Your task to perform on an android device: turn on location history Image 0: 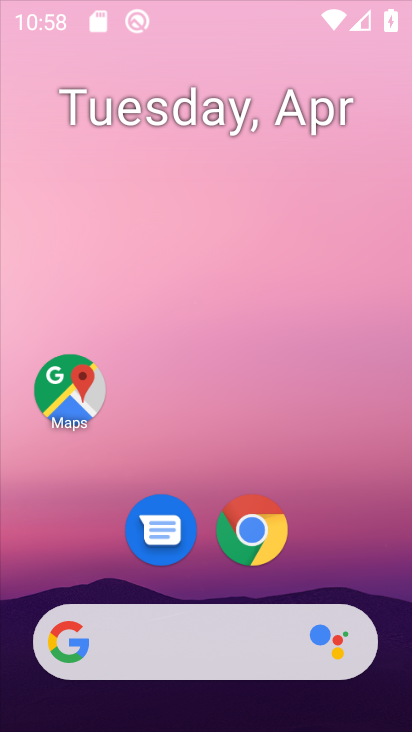
Step 0: click (338, 252)
Your task to perform on an android device: turn on location history Image 1: 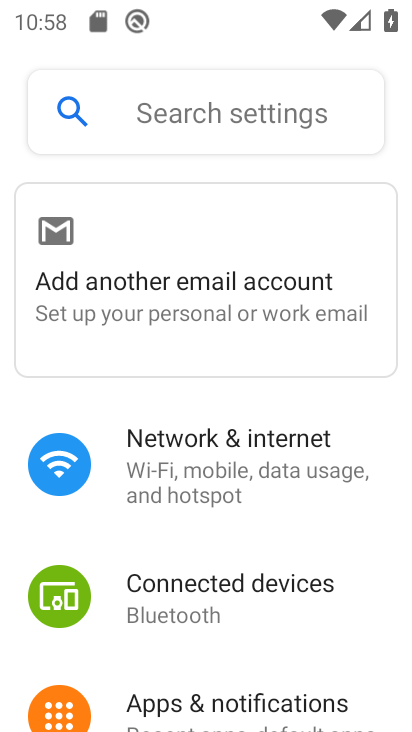
Step 1: press home button
Your task to perform on an android device: turn on location history Image 2: 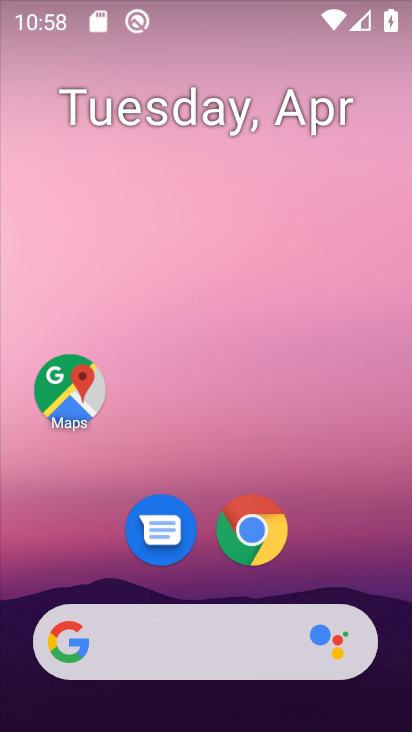
Step 2: drag from (191, 644) to (335, 48)
Your task to perform on an android device: turn on location history Image 3: 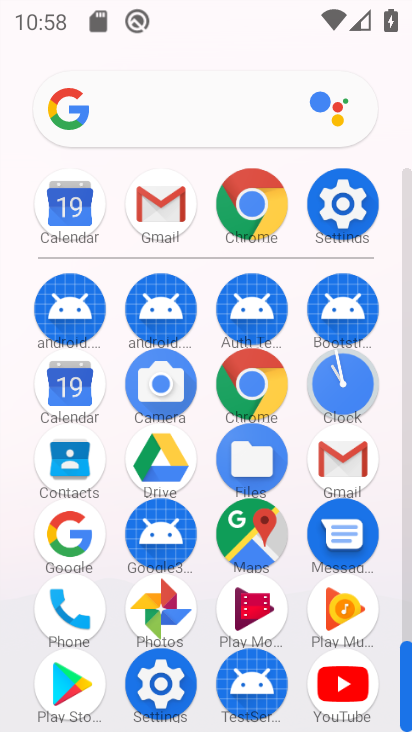
Step 3: click (338, 217)
Your task to perform on an android device: turn on location history Image 4: 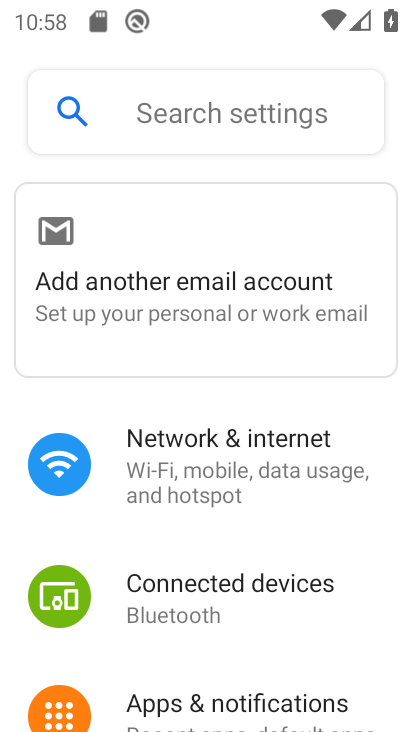
Step 4: drag from (225, 651) to (320, 221)
Your task to perform on an android device: turn on location history Image 5: 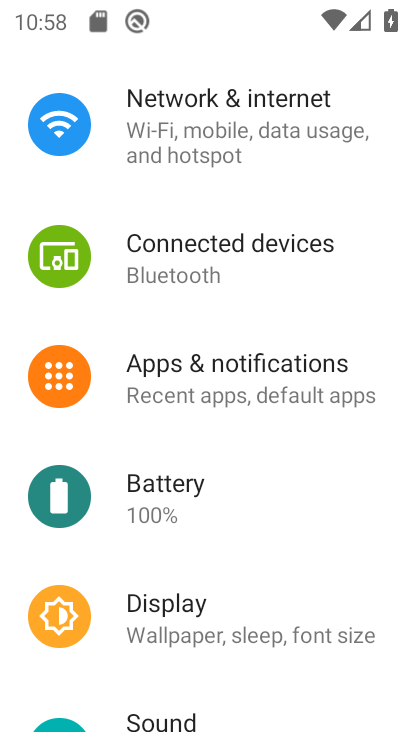
Step 5: drag from (186, 626) to (255, 190)
Your task to perform on an android device: turn on location history Image 6: 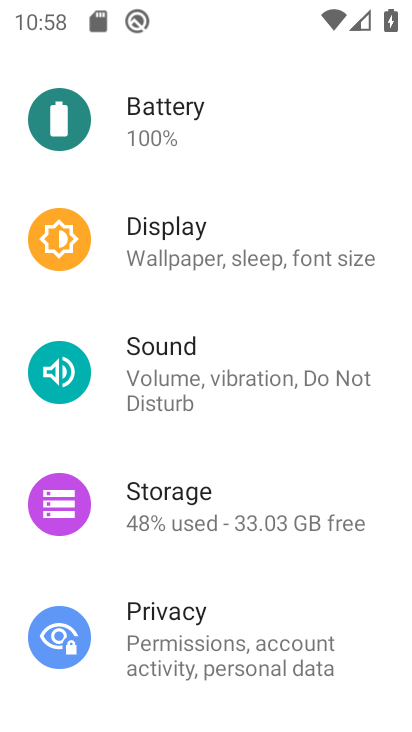
Step 6: drag from (267, 532) to (296, 95)
Your task to perform on an android device: turn on location history Image 7: 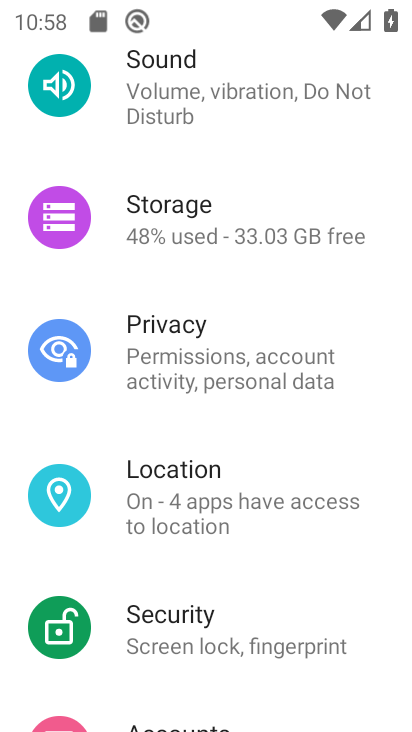
Step 7: click (187, 469)
Your task to perform on an android device: turn on location history Image 8: 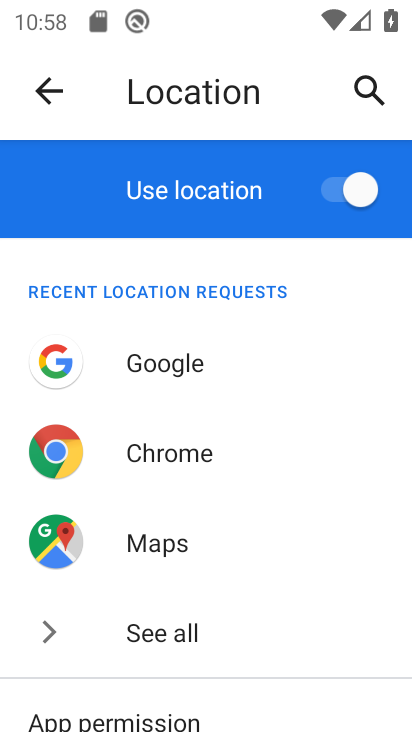
Step 8: drag from (165, 648) to (310, 234)
Your task to perform on an android device: turn on location history Image 9: 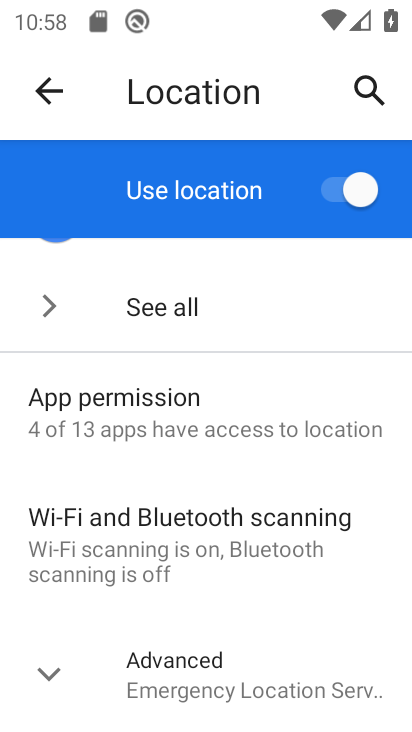
Step 9: click (131, 683)
Your task to perform on an android device: turn on location history Image 10: 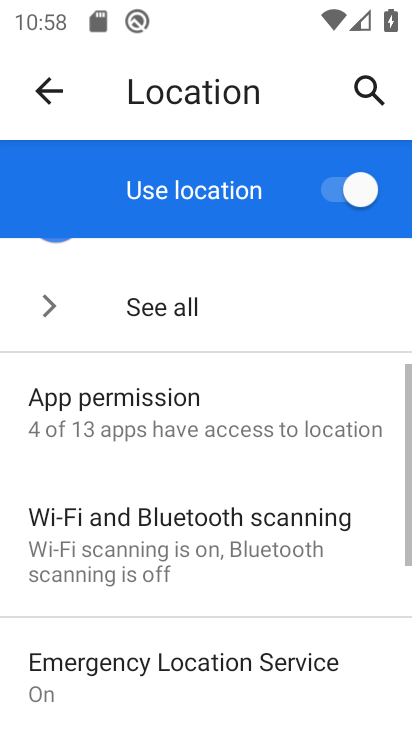
Step 10: drag from (140, 676) to (291, 247)
Your task to perform on an android device: turn on location history Image 11: 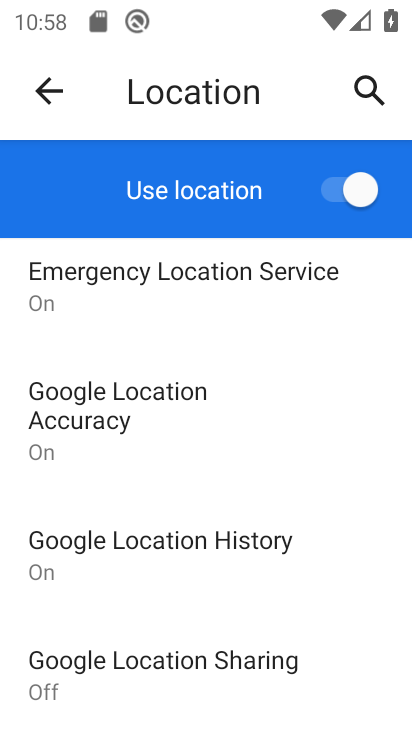
Step 11: click (161, 538)
Your task to perform on an android device: turn on location history Image 12: 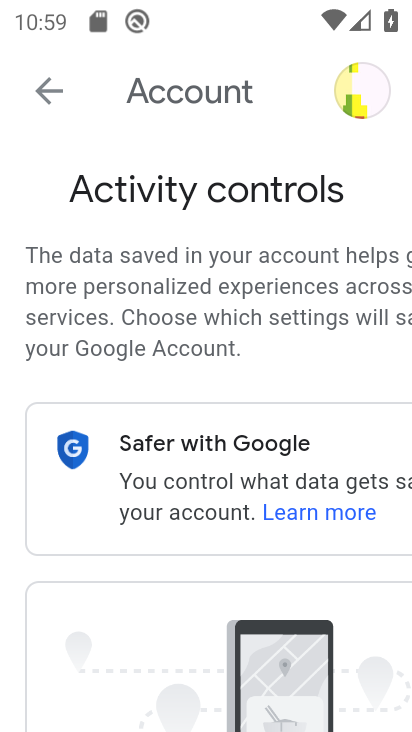
Step 12: drag from (133, 659) to (289, 214)
Your task to perform on an android device: turn on location history Image 13: 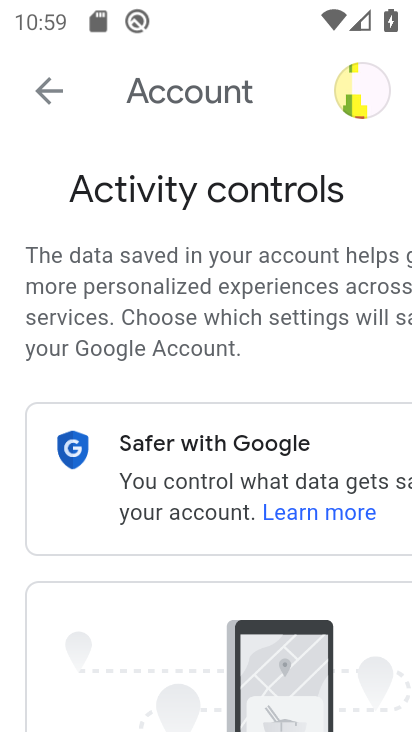
Step 13: drag from (173, 614) to (335, 39)
Your task to perform on an android device: turn on location history Image 14: 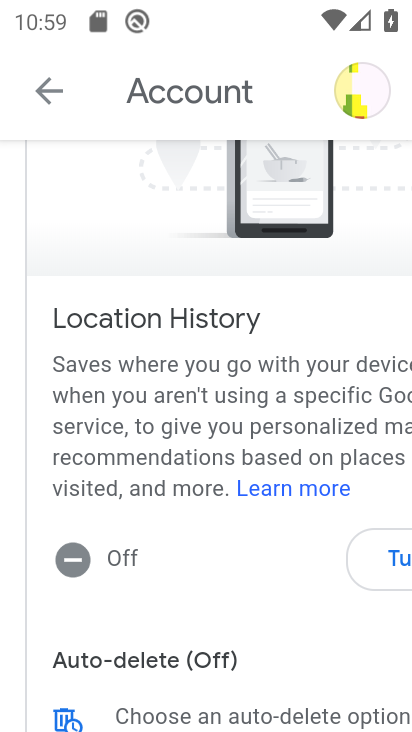
Step 14: click (398, 561)
Your task to perform on an android device: turn on location history Image 15: 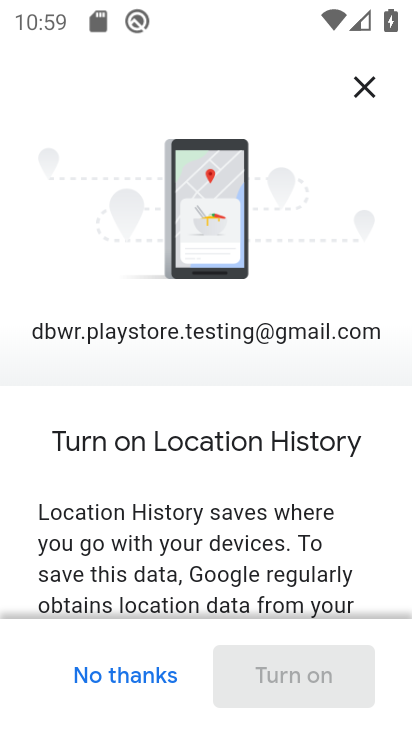
Step 15: drag from (146, 542) to (294, 140)
Your task to perform on an android device: turn on location history Image 16: 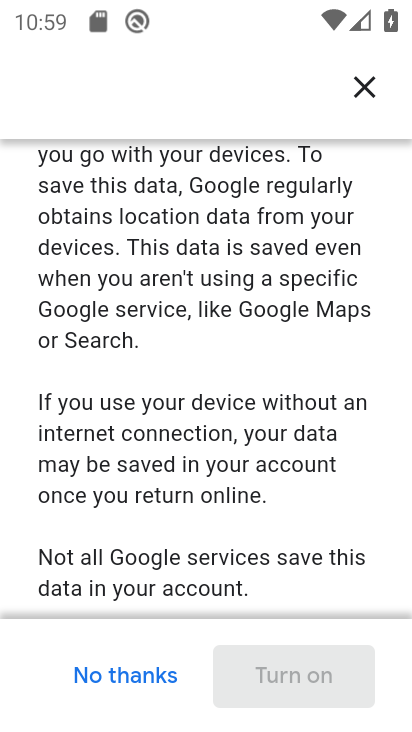
Step 16: drag from (175, 518) to (337, 155)
Your task to perform on an android device: turn on location history Image 17: 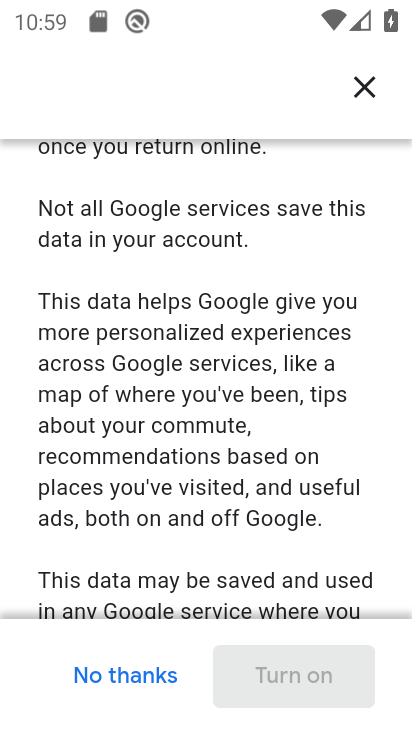
Step 17: drag from (228, 529) to (379, 73)
Your task to perform on an android device: turn on location history Image 18: 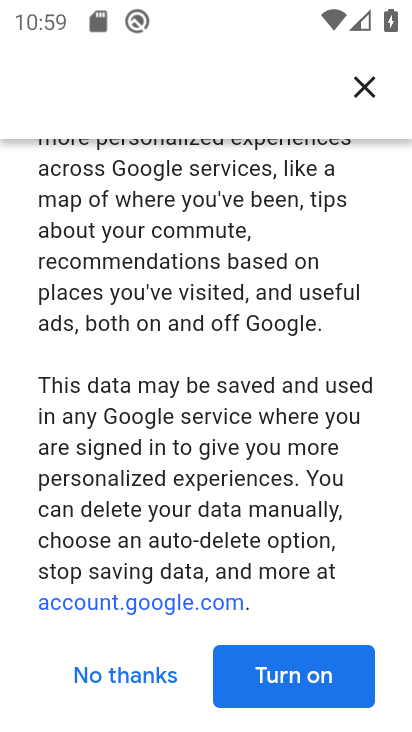
Step 18: click (297, 688)
Your task to perform on an android device: turn on location history Image 19: 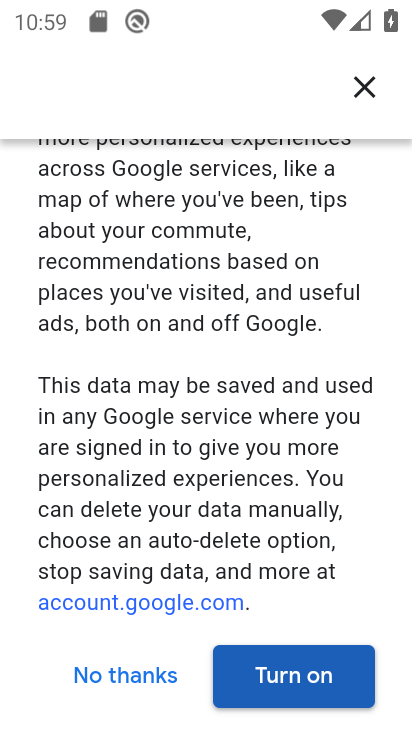
Step 19: click (299, 679)
Your task to perform on an android device: turn on location history Image 20: 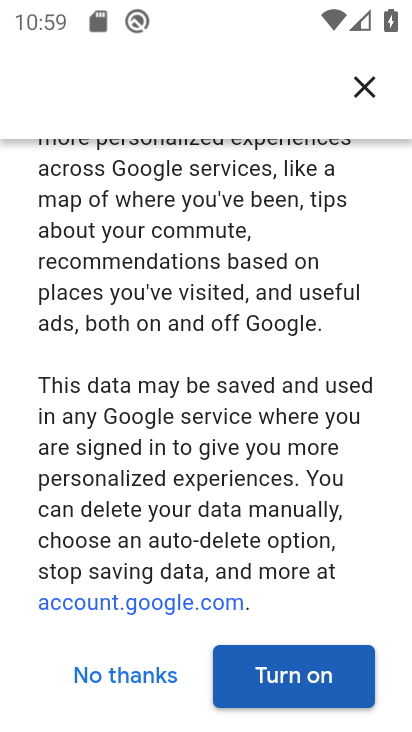
Step 20: click (294, 676)
Your task to perform on an android device: turn on location history Image 21: 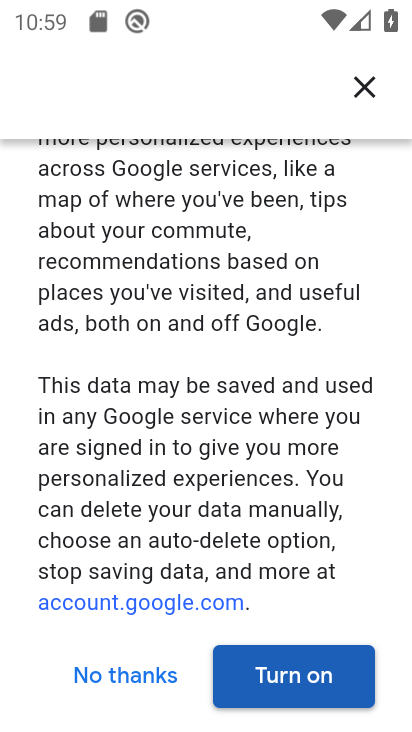
Step 21: click (294, 675)
Your task to perform on an android device: turn on location history Image 22: 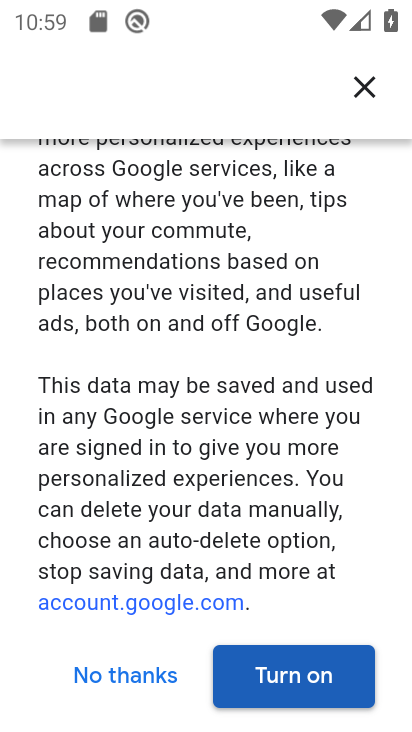
Step 22: click (296, 683)
Your task to perform on an android device: turn on location history Image 23: 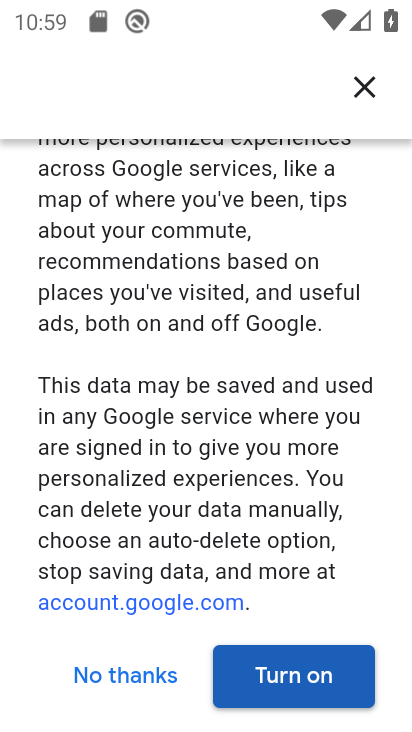
Step 23: click (296, 680)
Your task to perform on an android device: turn on location history Image 24: 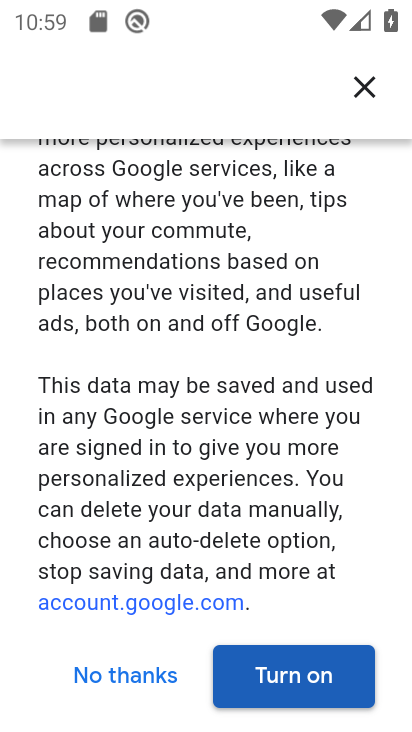
Step 24: click (305, 675)
Your task to perform on an android device: turn on location history Image 25: 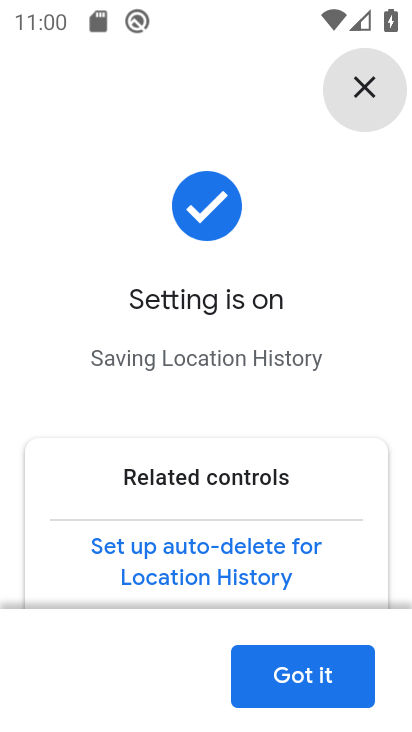
Step 25: task complete